Your task to perform on an android device: Open settings on Google Maps Image 0: 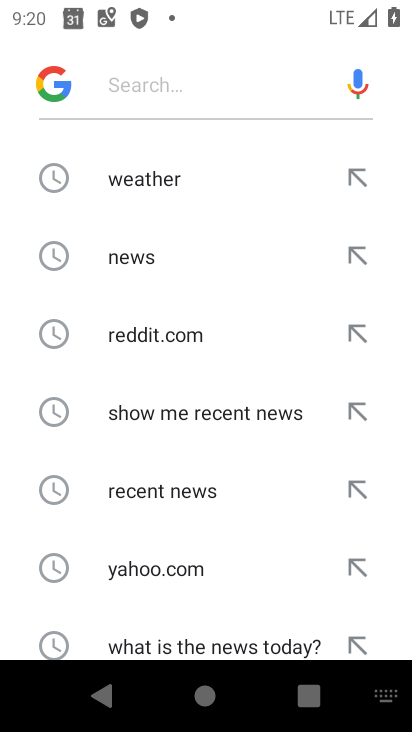
Step 0: press home button
Your task to perform on an android device: Open settings on Google Maps Image 1: 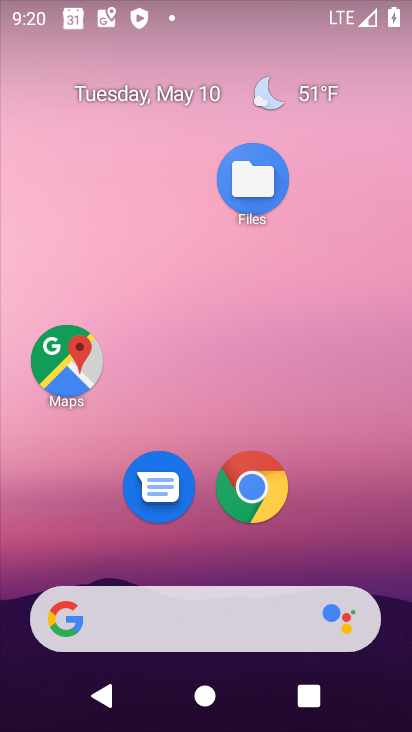
Step 1: click (68, 366)
Your task to perform on an android device: Open settings on Google Maps Image 2: 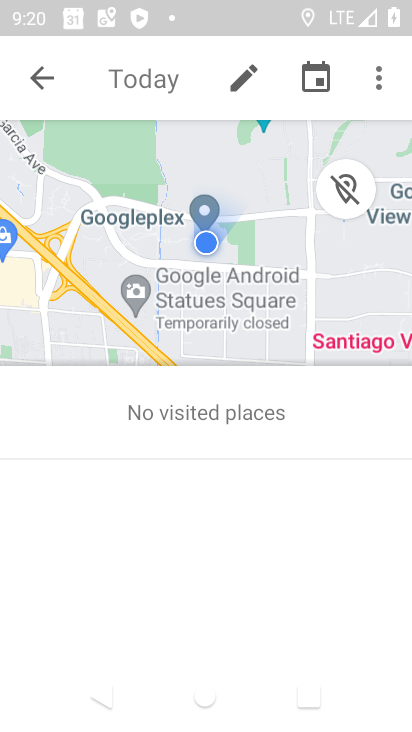
Step 2: press back button
Your task to perform on an android device: Open settings on Google Maps Image 3: 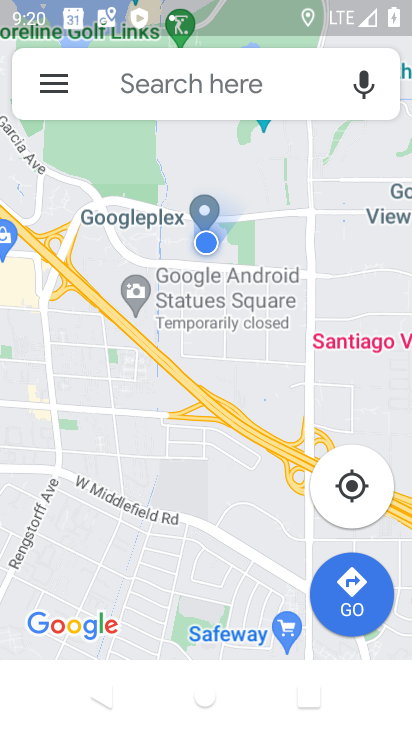
Step 3: click (52, 85)
Your task to perform on an android device: Open settings on Google Maps Image 4: 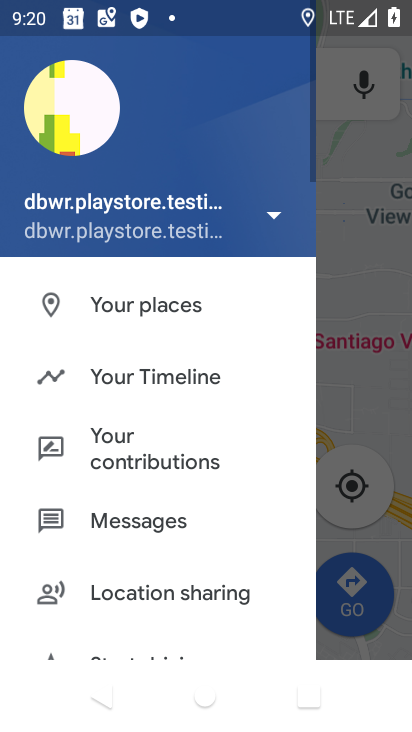
Step 4: drag from (163, 532) to (180, 25)
Your task to perform on an android device: Open settings on Google Maps Image 5: 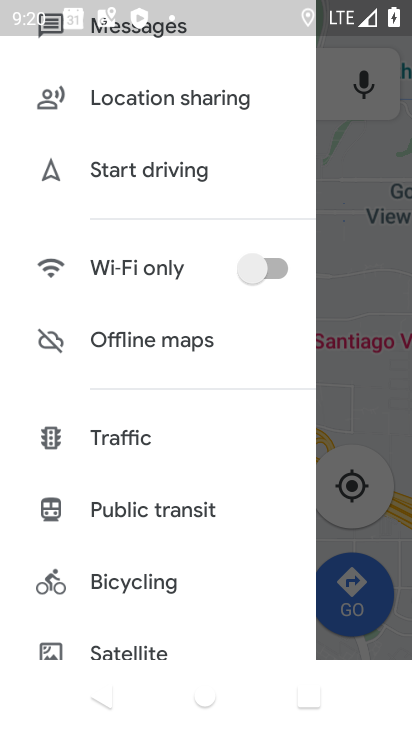
Step 5: drag from (154, 578) to (153, 70)
Your task to perform on an android device: Open settings on Google Maps Image 6: 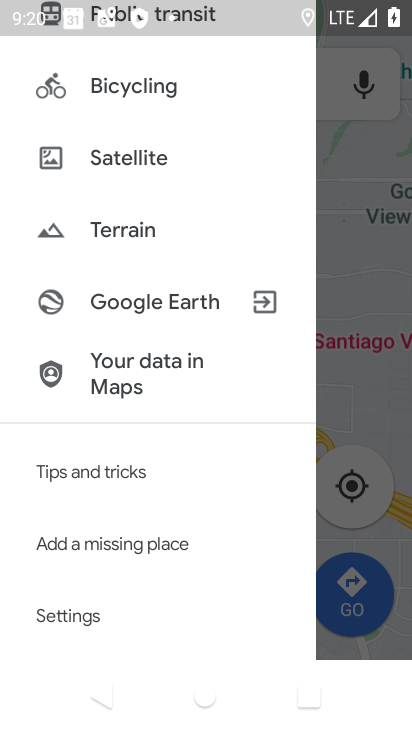
Step 6: drag from (164, 556) to (145, 306)
Your task to perform on an android device: Open settings on Google Maps Image 7: 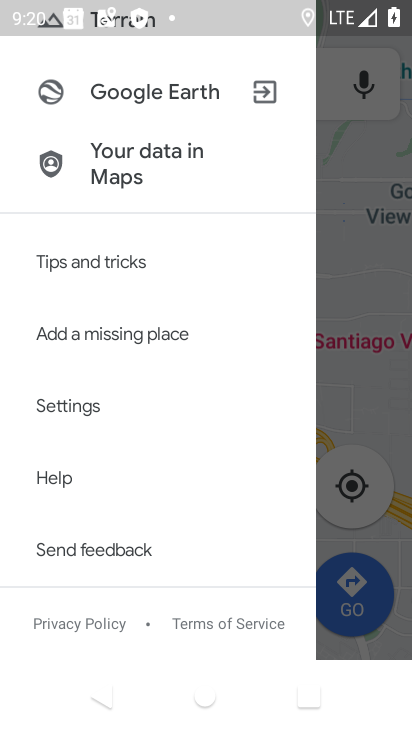
Step 7: click (89, 400)
Your task to perform on an android device: Open settings on Google Maps Image 8: 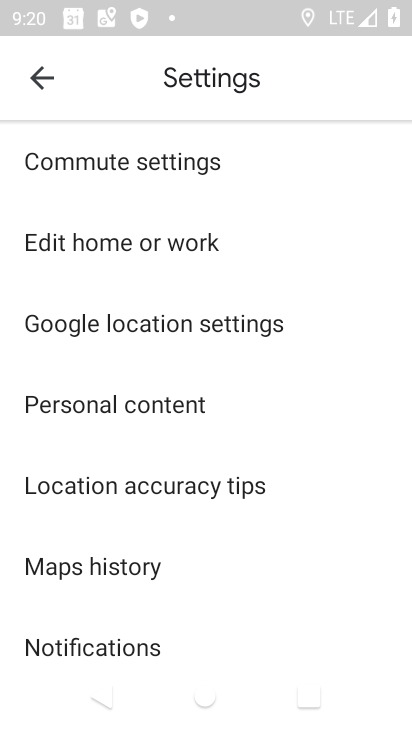
Step 8: task complete